Your task to perform on an android device: all mails in gmail Image 0: 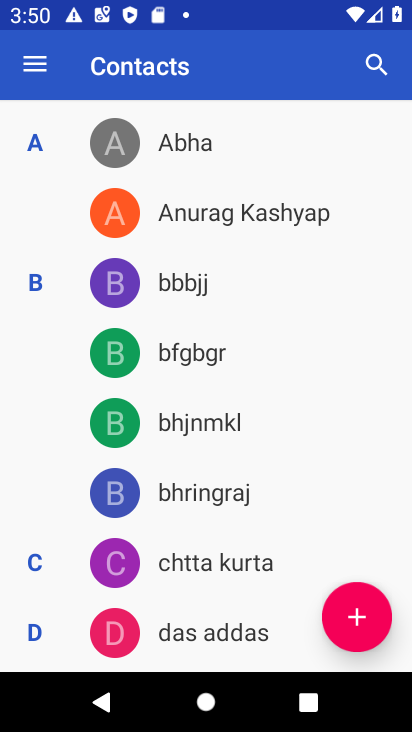
Step 0: press home button
Your task to perform on an android device: all mails in gmail Image 1: 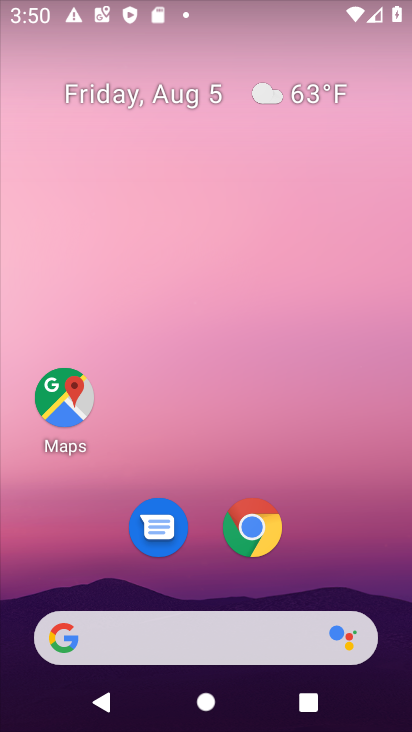
Step 1: drag from (205, 571) to (228, 106)
Your task to perform on an android device: all mails in gmail Image 2: 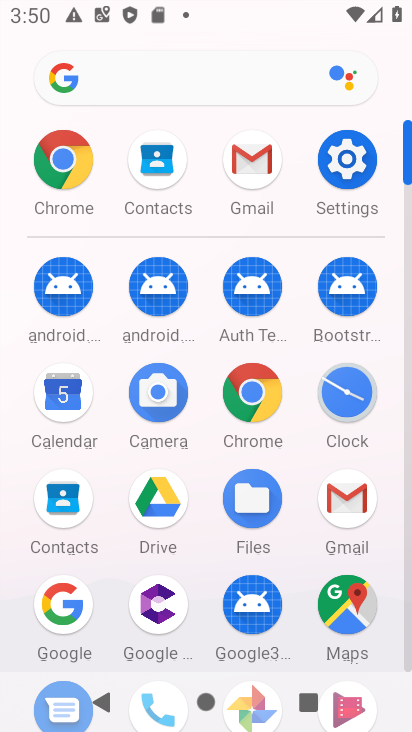
Step 2: click (356, 493)
Your task to perform on an android device: all mails in gmail Image 3: 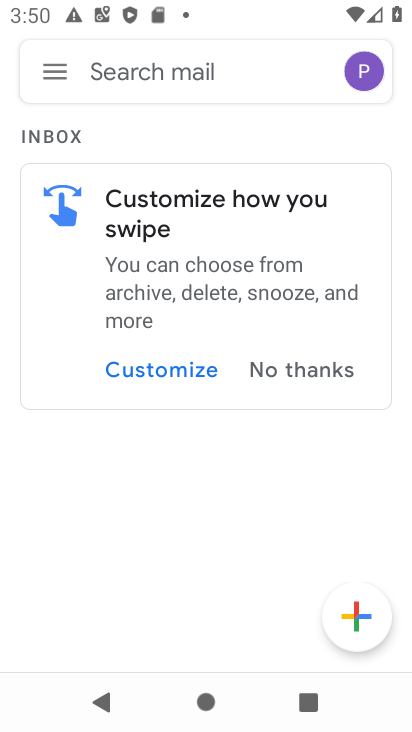
Step 3: click (52, 70)
Your task to perform on an android device: all mails in gmail Image 4: 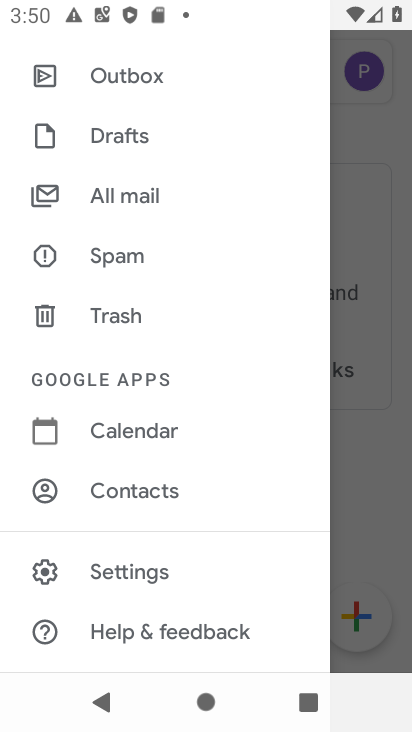
Step 4: click (115, 185)
Your task to perform on an android device: all mails in gmail Image 5: 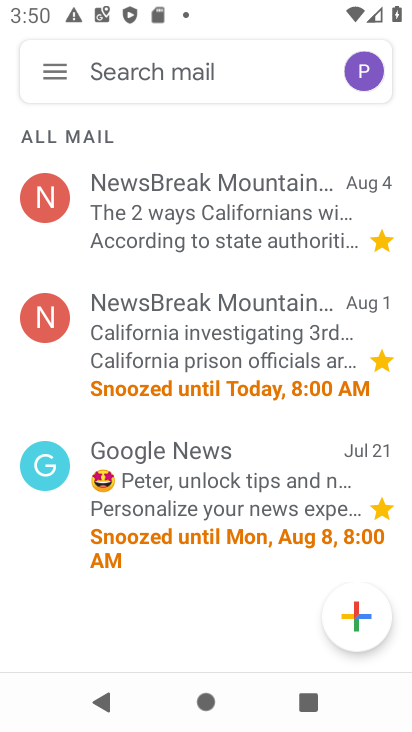
Step 5: task complete